Your task to perform on an android device: Turn off the flashlight Image 0: 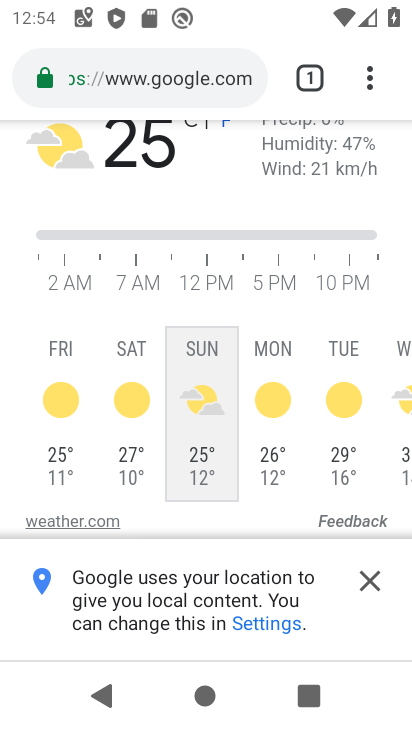
Step 0: press home button
Your task to perform on an android device: Turn off the flashlight Image 1: 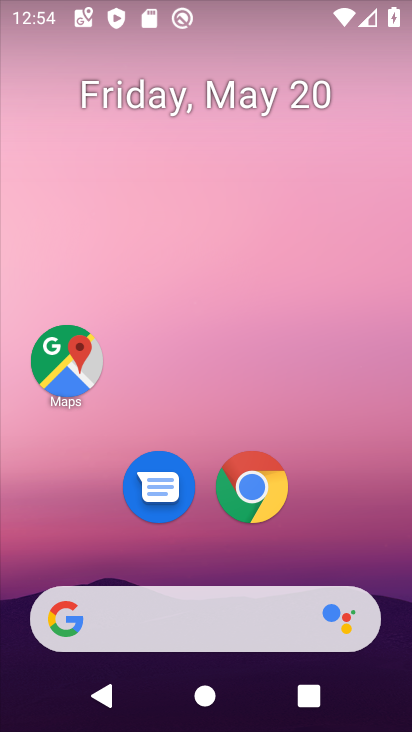
Step 1: task complete